Your task to perform on an android device: What is the capital of Argentina? Image 0: 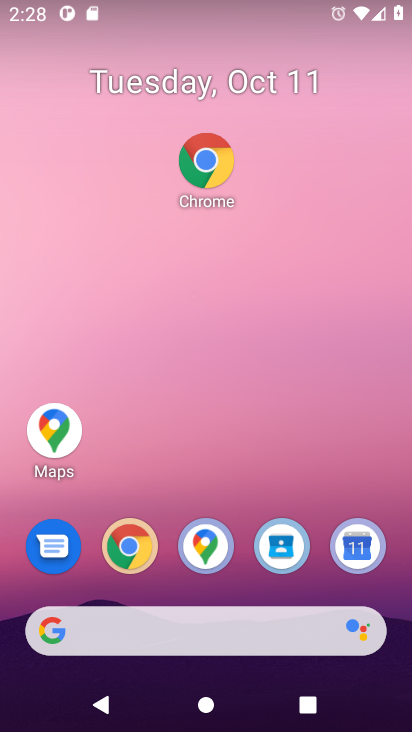
Step 0: click (134, 543)
Your task to perform on an android device: What is the capital of Argentina? Image 1: 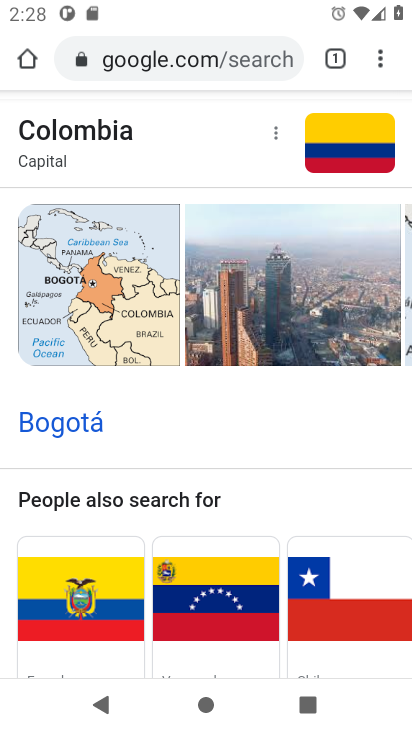
Step 1: click (202, 60)
Your task to perform on an android device: What is the capital of Argentina? Image 2: 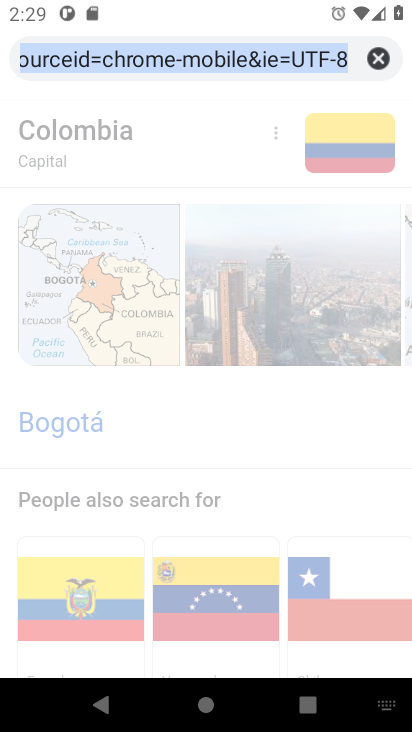
Step 2: type "capital of Argentina"
Your task to perform on an android device: What is the capital of Argentina? Image 3: 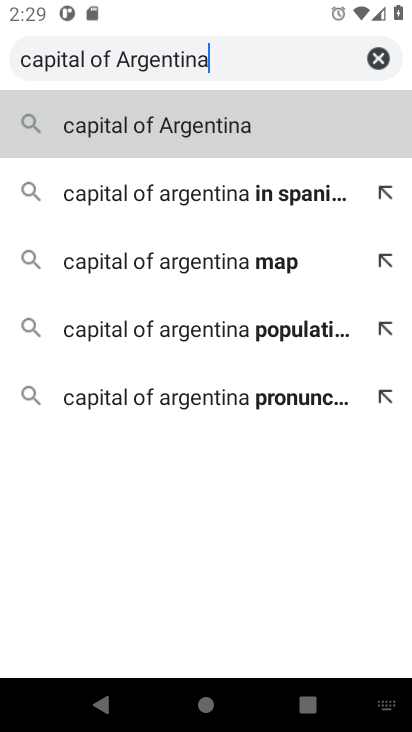
Step 3: type ""
Your task to perform on an android device: What is the capital of Argentina? Image 4: 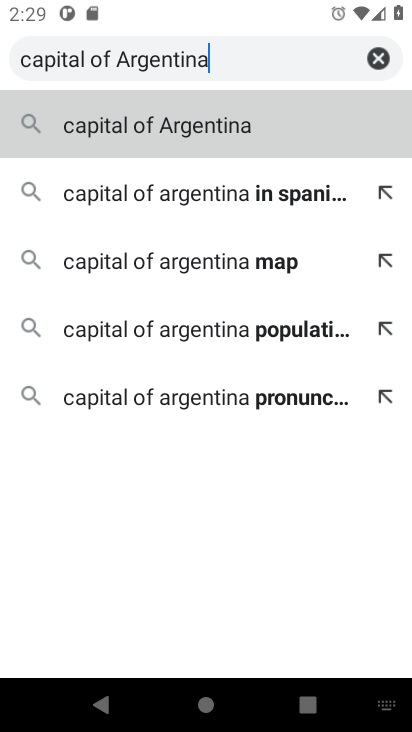
Step 4: press enter
Your task to perform on an android device: What is the capital of Argentina? Image 5: 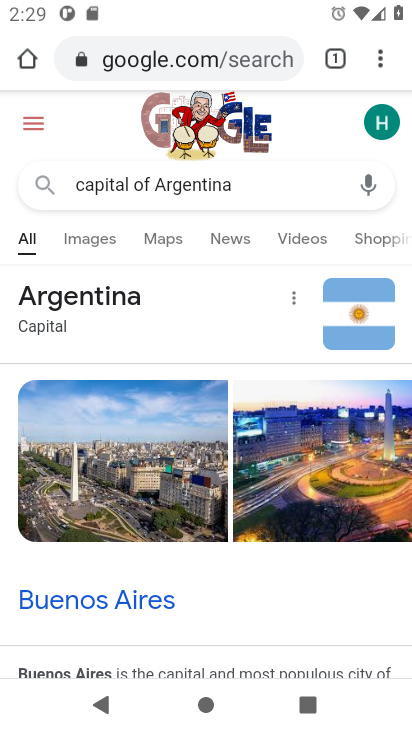
Step 5: task complete